Your task to perform on an android device: all mails in gmail Image 0: 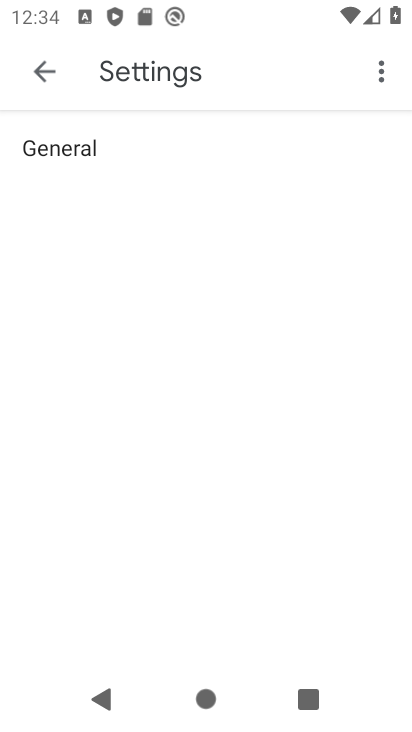
Step 0: press home button
Your task to perform on an android device: all mails in gmail Image 1: 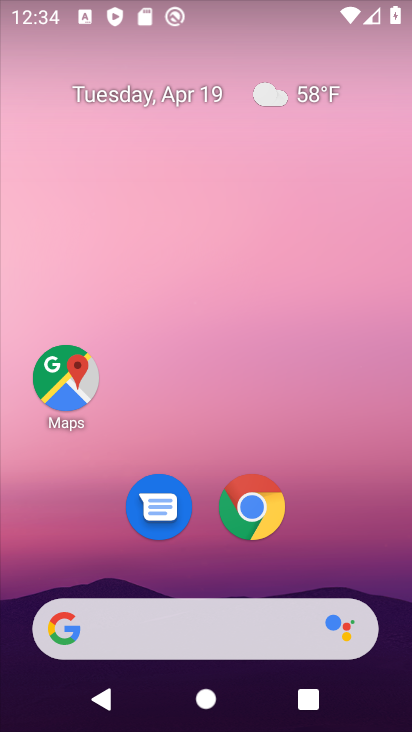
Step 1: drag from (202, 571) to (194, 60)
Your task to perform on an android device: all mails in gmail Image 2: 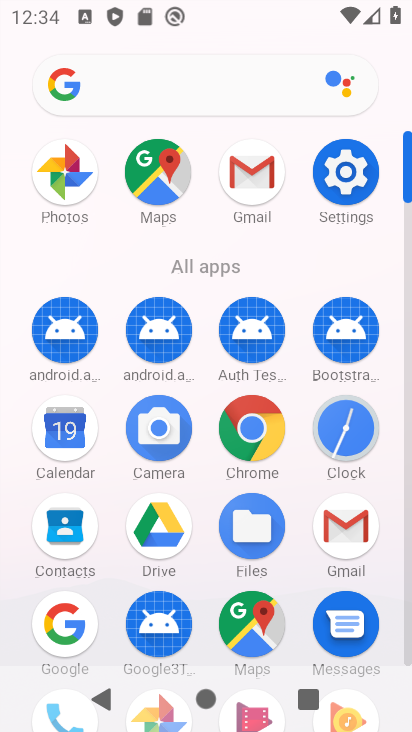
Step 2: click (362, 562)
Your task to perform on an android device: all mails in gmail Image 3: 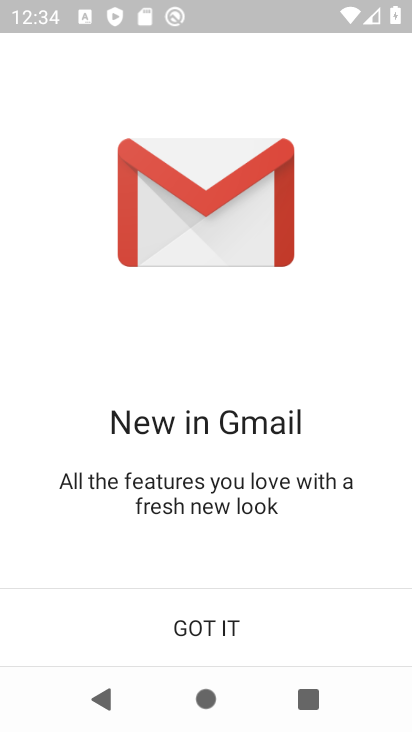
Step 3: click (219, 627)
Your task to perform on an android device: all mails in gmail Image 4: 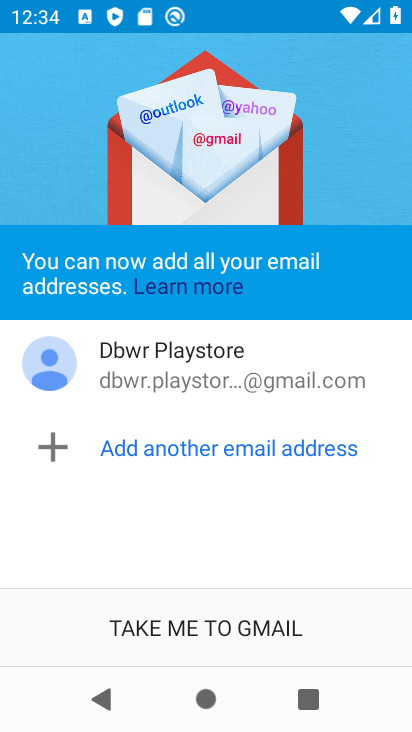
Step 4: click (248, 627)
Your task to perform on an android device: all mails in gmail Image 5: 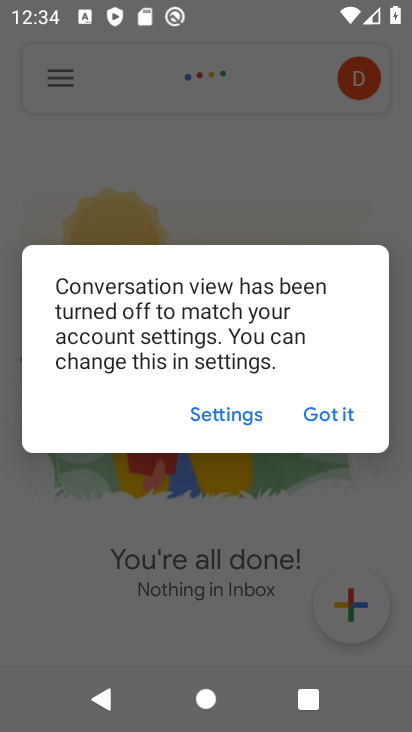
Step 5: click (324, 417)
Your task to perform on an android device: all mails in gmail Image 6: 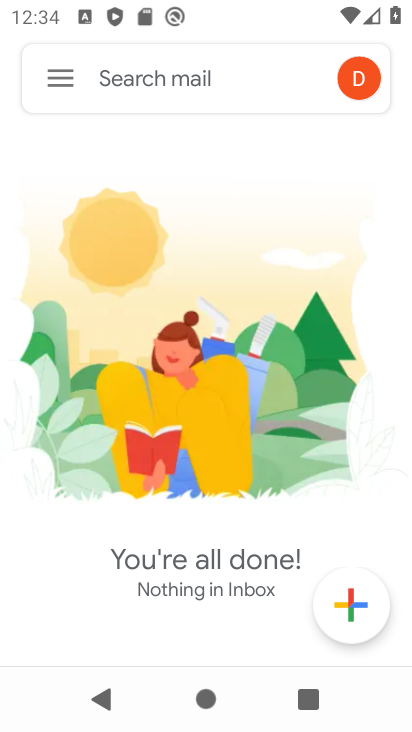
Step 6: click (46, 75)
Your task to perform on an android device: all mails in gmail Image 7: 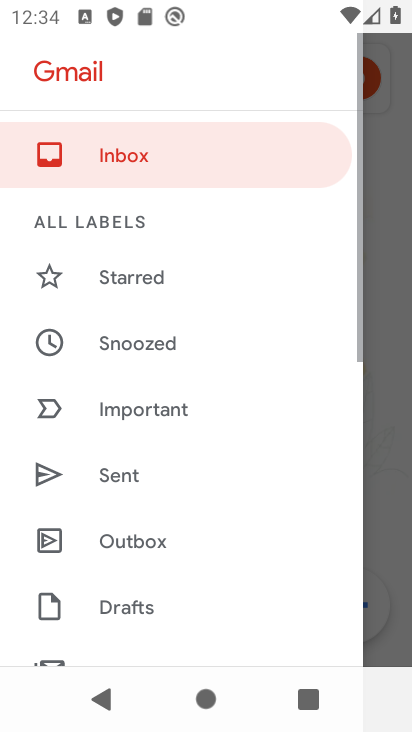
Step 7: drag from (209, 617) to (204, 178)
Your task to perform on an android device: all mails in gmail Image 8: 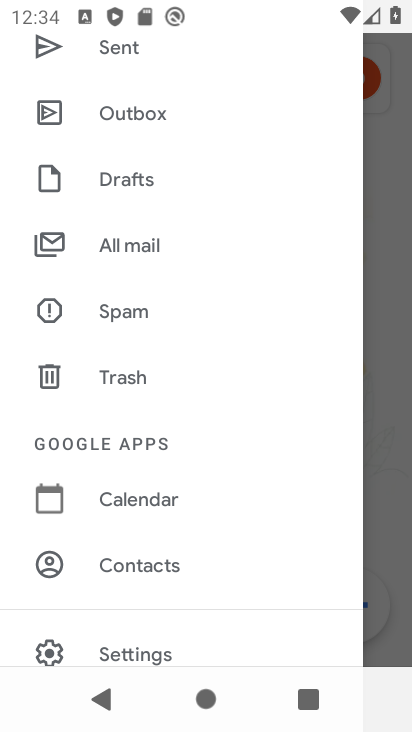
Step 8: click (171, 245)
Your task to perform on an android device: all mails in gmail Image 9: 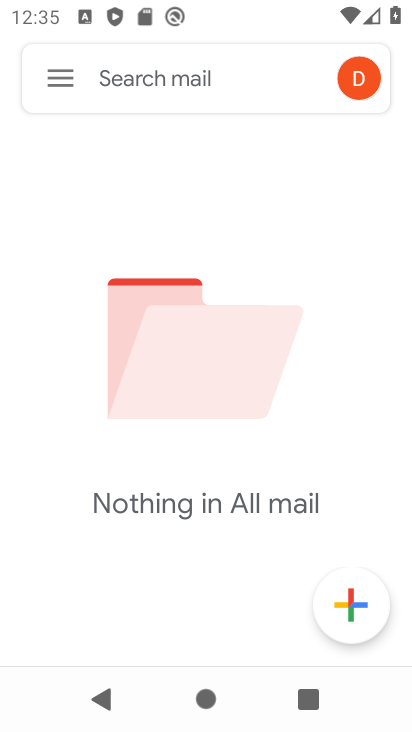
Step 9: task complete